Your task to perform on an android device: toggle airplane mode Image 0: 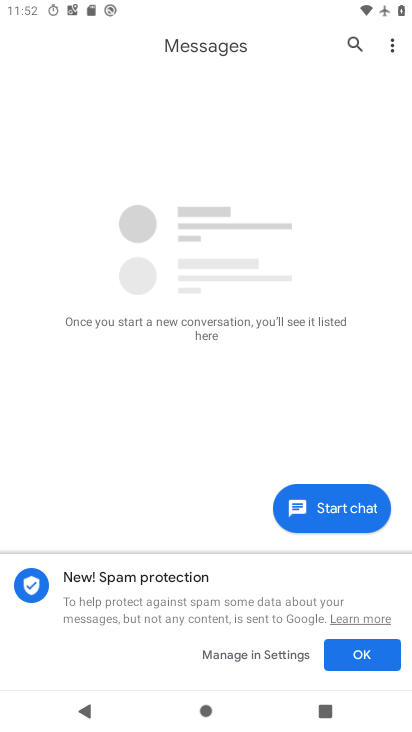
Step 0: press home button
Your task to perform on an android device: toggle airplane mode Image 1: 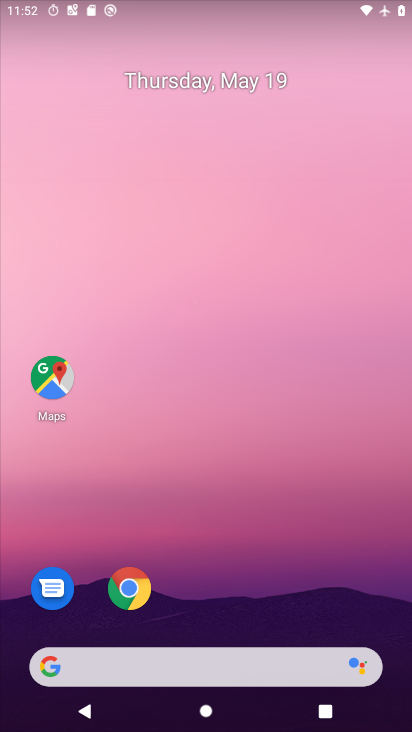
Step 1: drag from (121, 663) to (253, 195)
Your task to perform on an android device: toggle airplane mode Image 2: 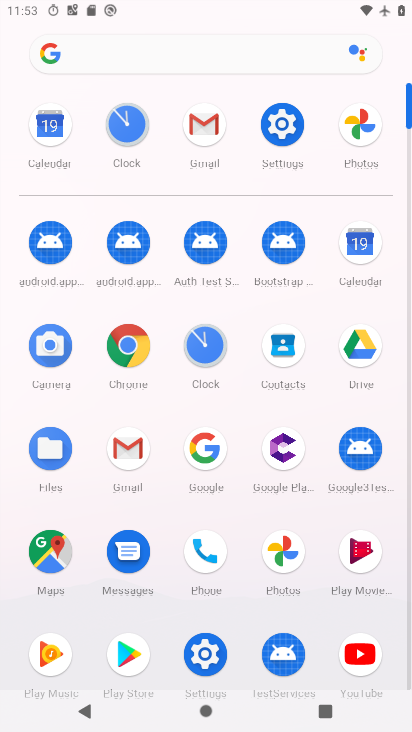
Step 2: click (279, 135)
Your task to perform on an android device: toggle airplane mode Image 3: 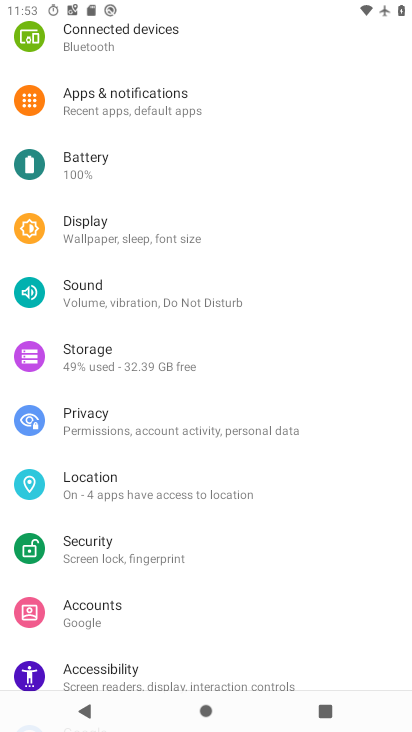
Step 3: drag from (237, 73) to (216, 482)
Your task to perform on an android device: toggle airplane mode Image 4: 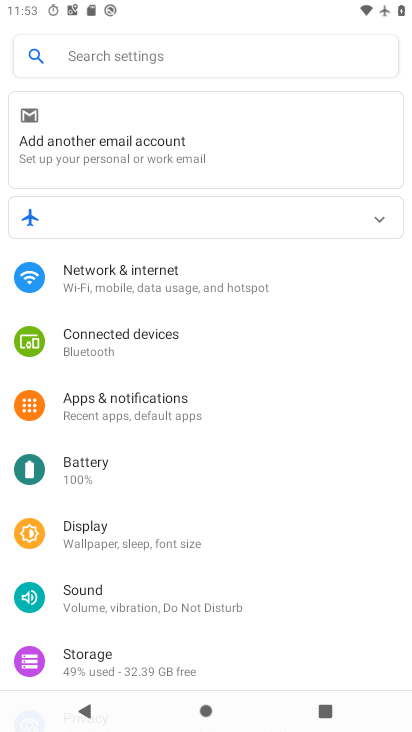
Step 4: click (189, 284)
Your task to perform on an android device: toggle airplane mode Image 5: 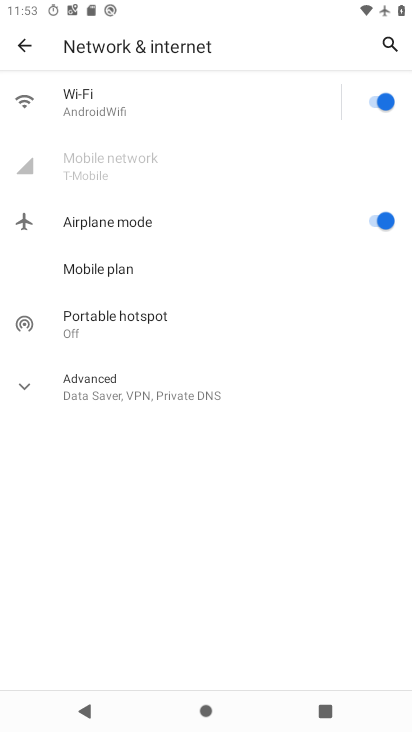
Step 5: click (380, 222)
Your task to perform on an android device: toggle airplane mode Image 6: 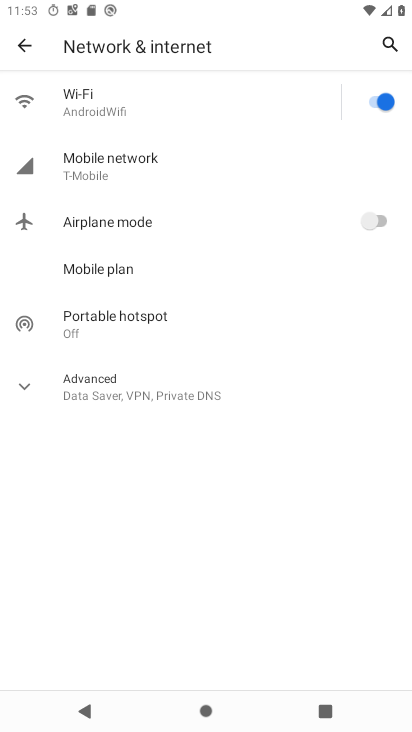
Step 6: task complete